Your task to perform on an android device: What's the weather? Image 0: 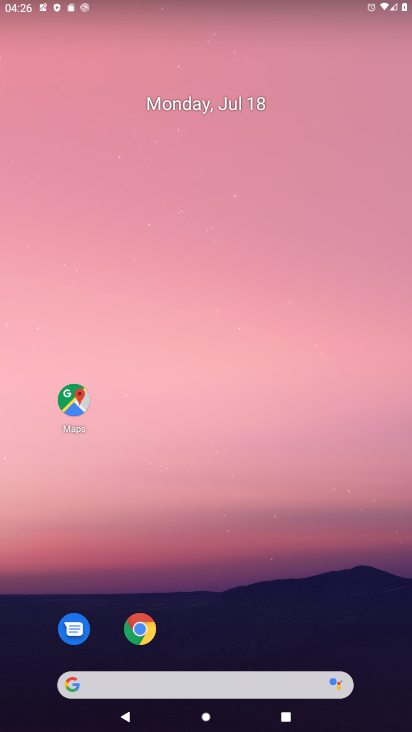
Step 0: drag from (34, 243) to (410, 292)
Your task to perform on an android device: What's the weather? Image 1: 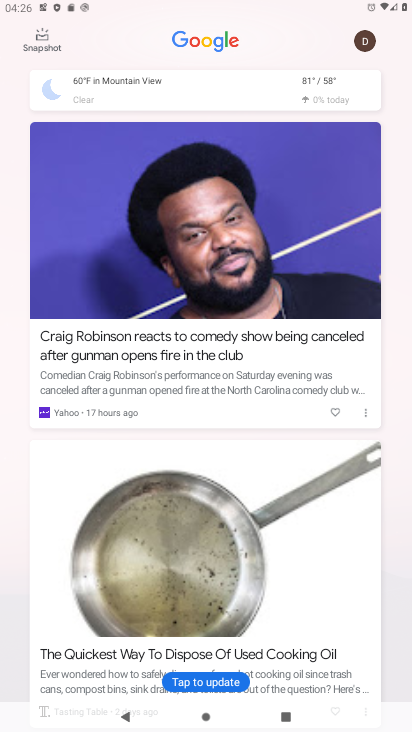
Step 1: click (303, 78)
Your task to perform on an android device: What's the weather? Image 2: 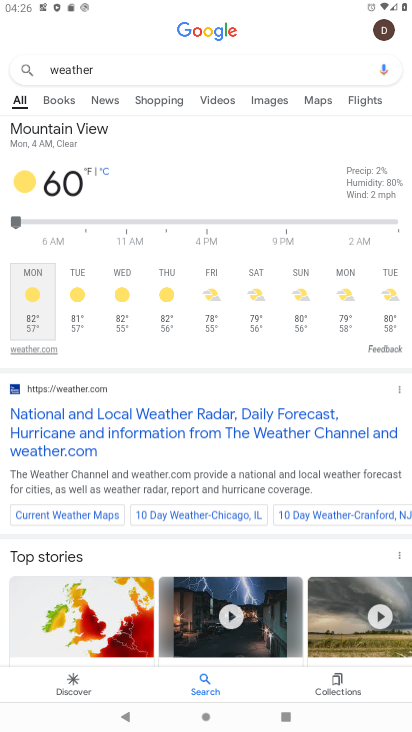
Step 2: task complete